Your task to perform on an android device: Open Google Maps and go to "Timeline" Image 0: 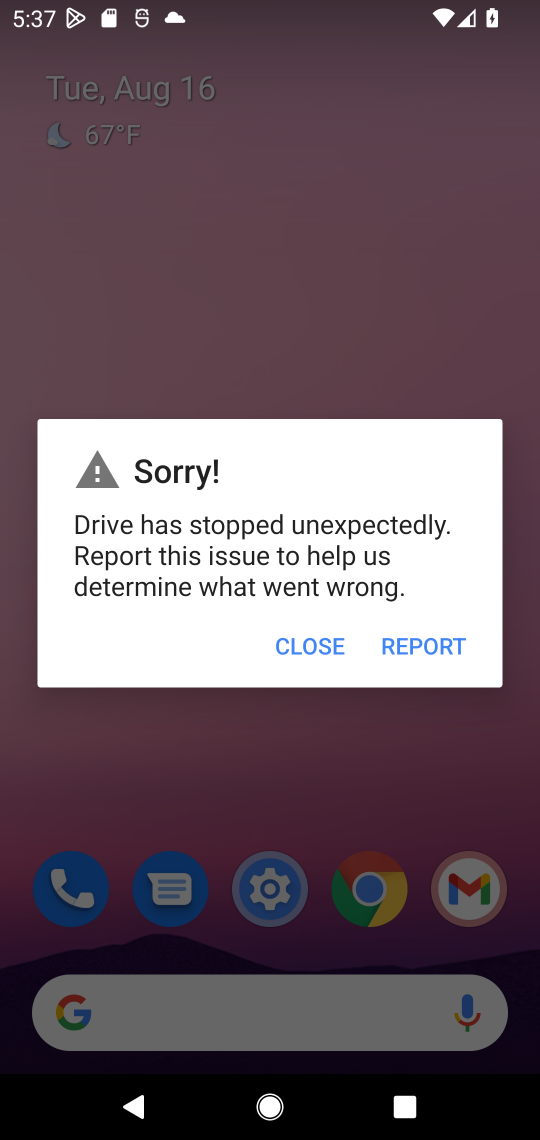
Step 0: press home button
Your task to perform on an android device: Open Google Maps and go to "Timeline" Image 1: 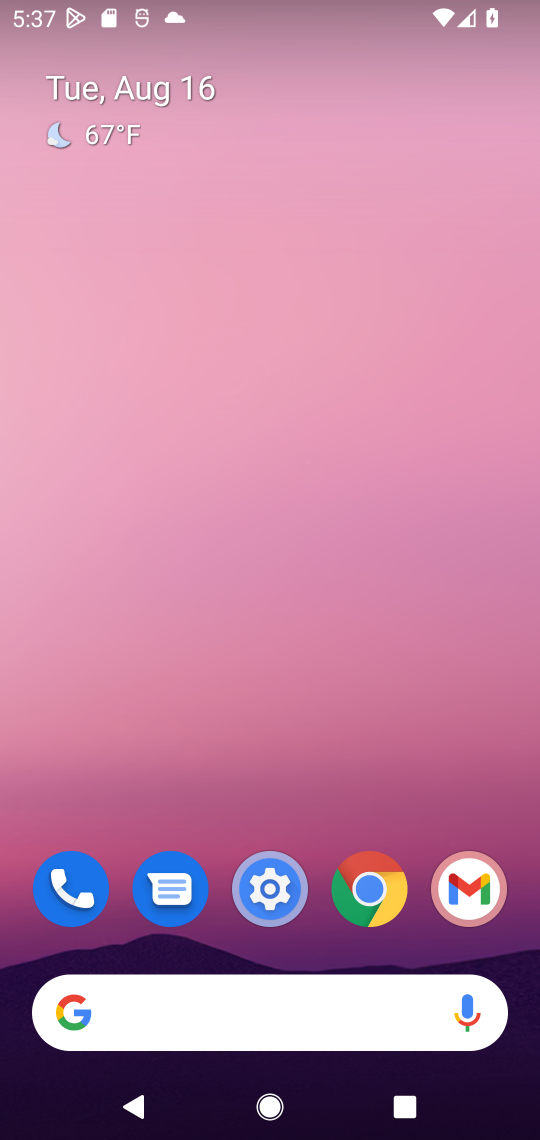
Step 1: drag from (283, 776) to (387, 71)
Your task to perform on an android device: Open Google Maps and go to "Timeline" Image 2: 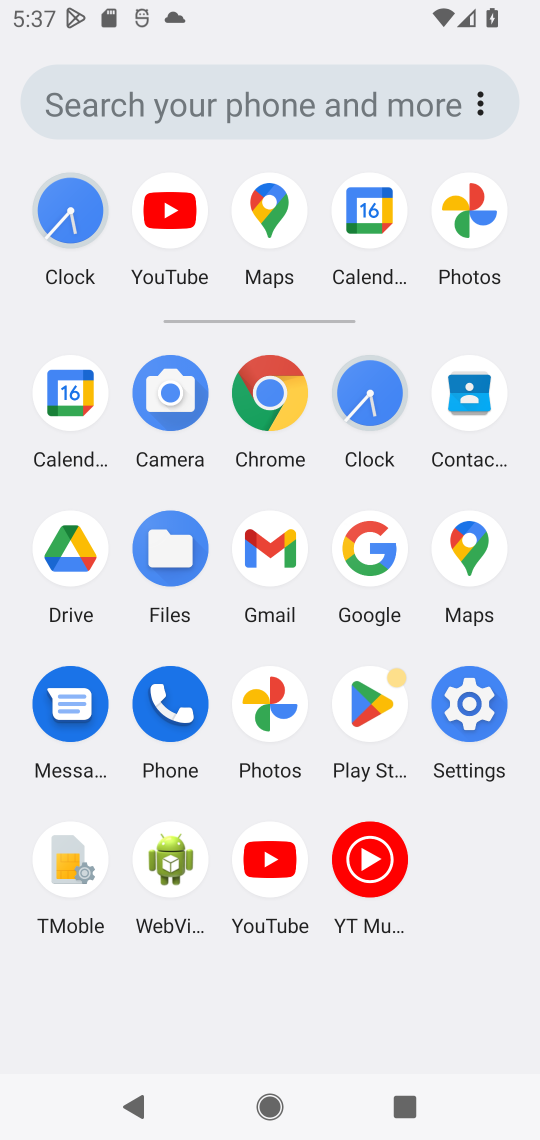
Step 2: click (468, 562)
Your task to perform on an android device: Open Google Maps and go to "Timeline" Image 3: 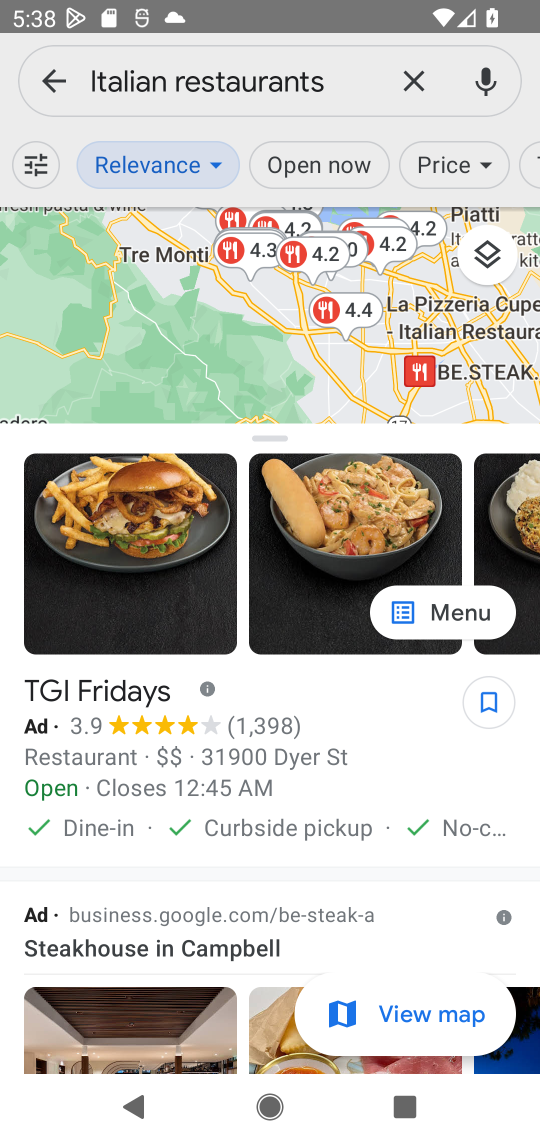
Step 3: task complete